Your task to perform on an android device: What is the recent news? Image 0: 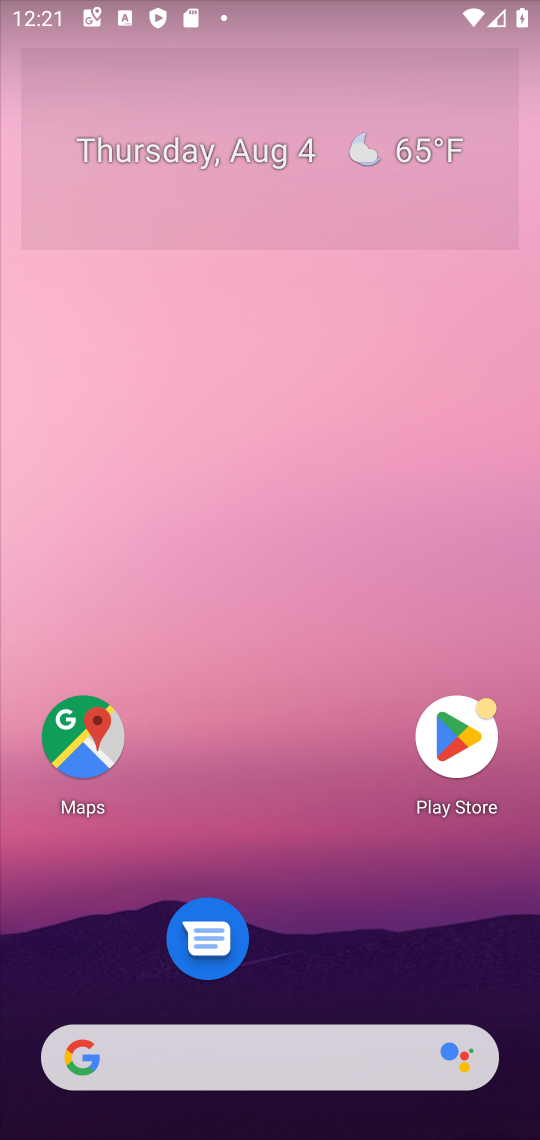
Step 0: click (341, 1023)
Your task to perform on an android device: What is the recent news? Image 1: 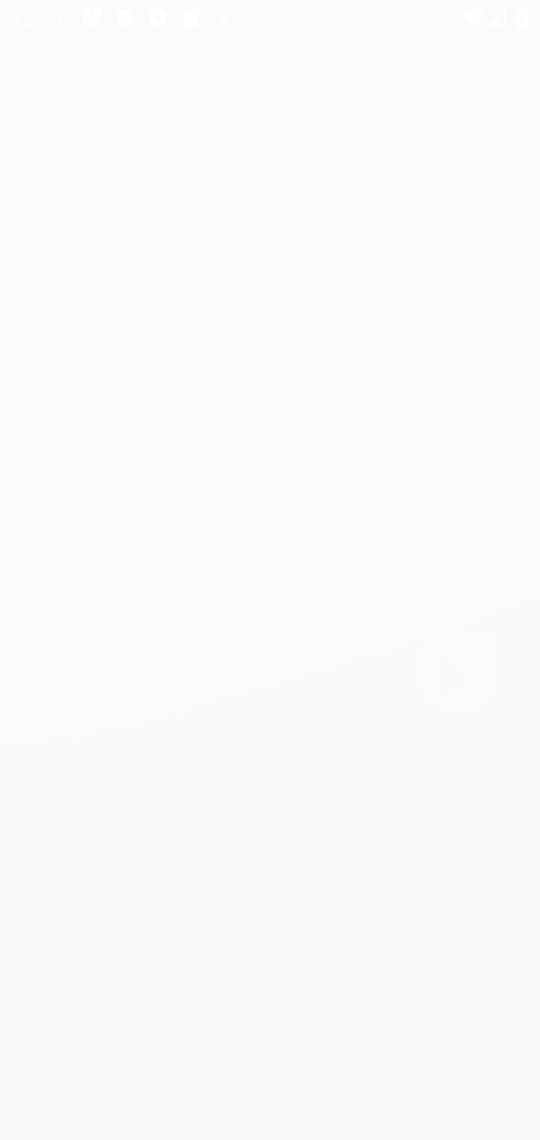
Step 1: click (335, 1048)
Your task to perform on an android device: What is the recent news? Image 2: 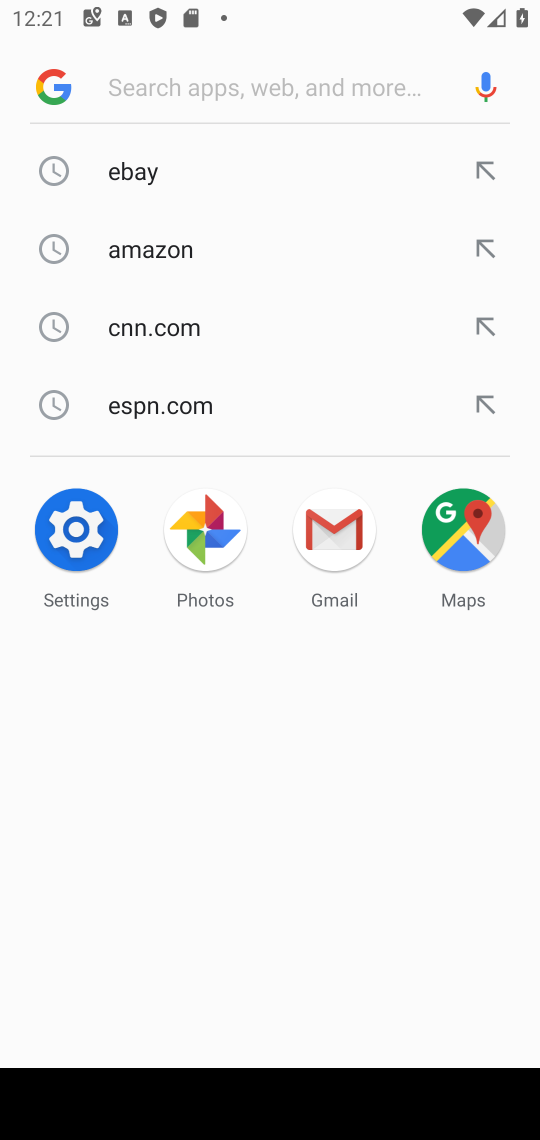
Step 2: type "recent news"
Your task to perform on an android device: What is the recent news? Image 3: 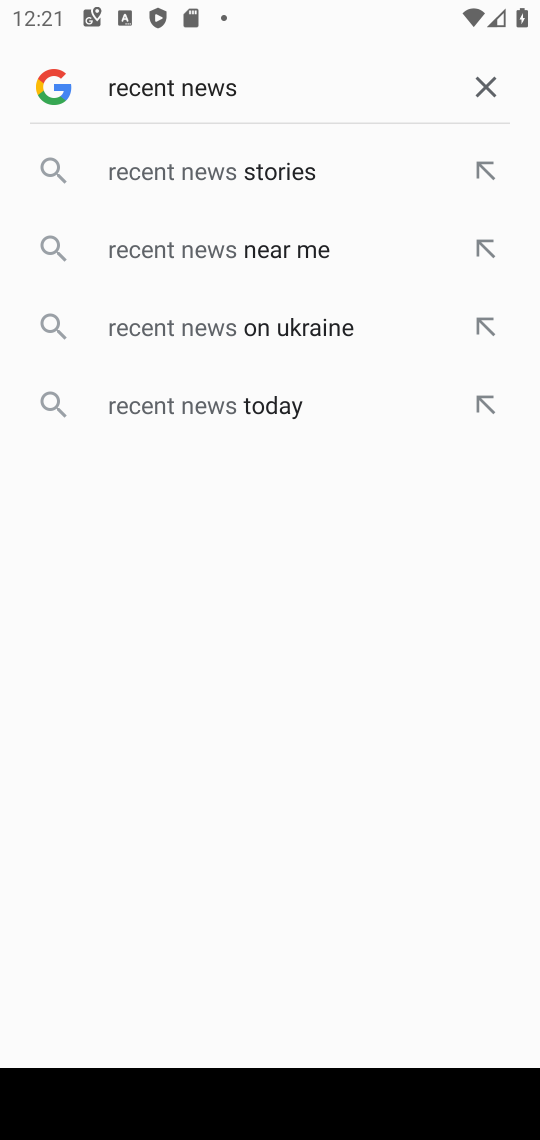
Step 3: type ""
Your task to perform on an android device: What is the recent news? Image 4: 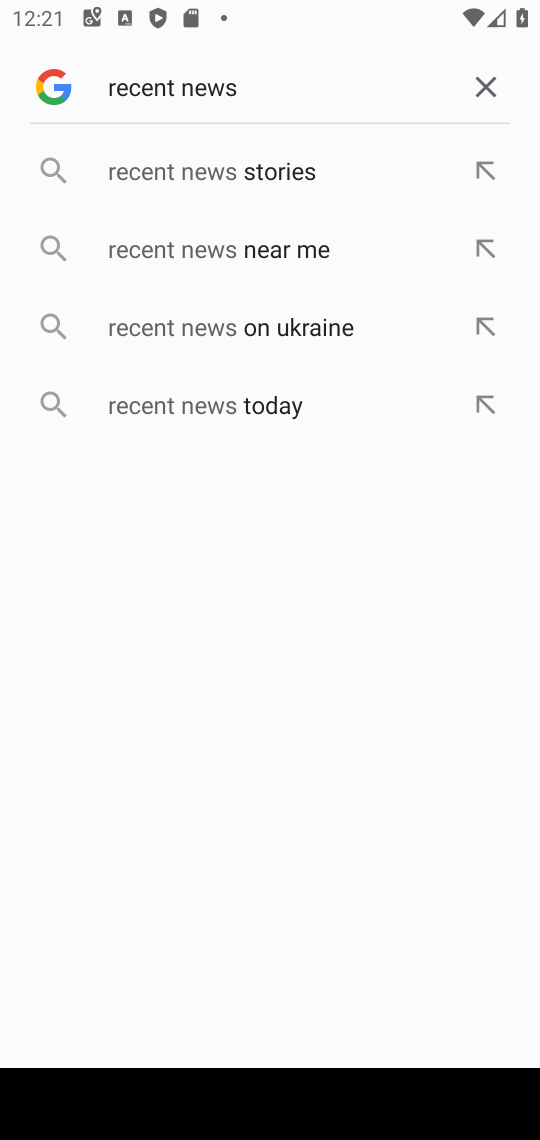
Step 4: press enter
Your task to perform on an android device: What is the recent news? Image 5: 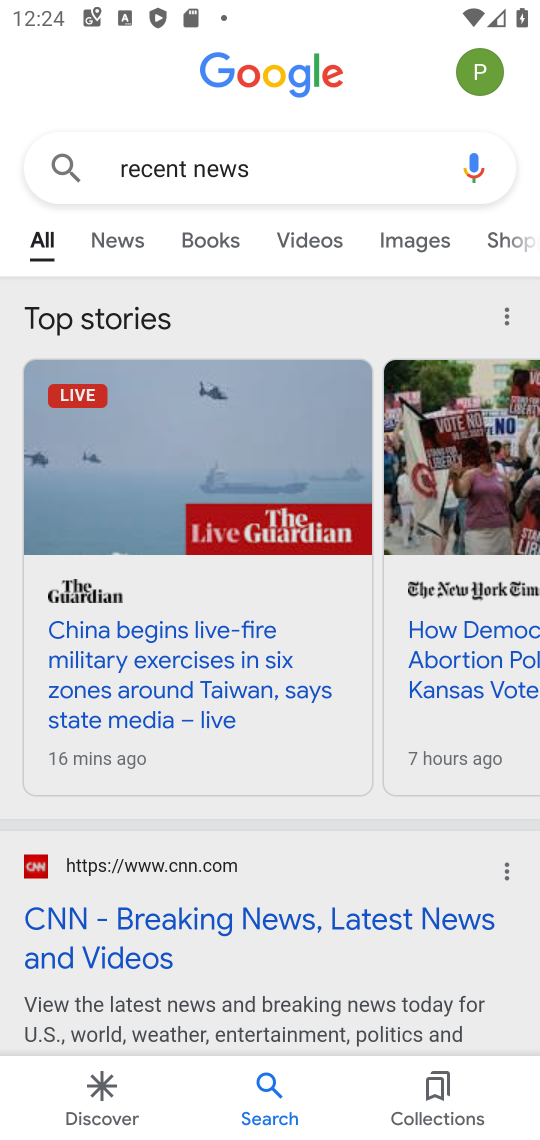
Step 5: task complete